Your task to perform on an android device: Open the calendar and show me this week's events? Image 0: 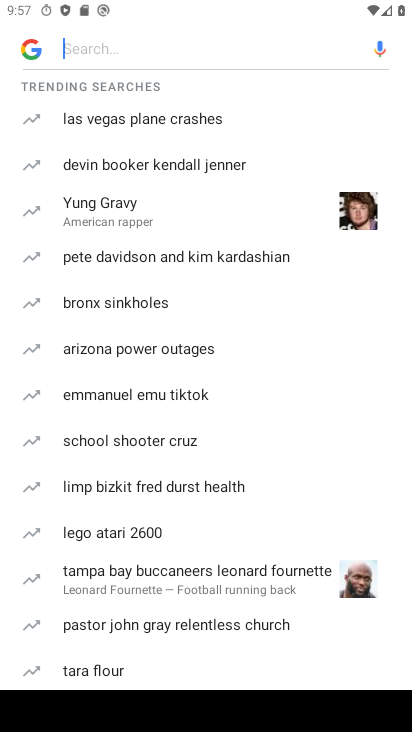
Step 0: press home button
Your task to perform on an android device: Open the calendar and show me this week's events? Image 1: 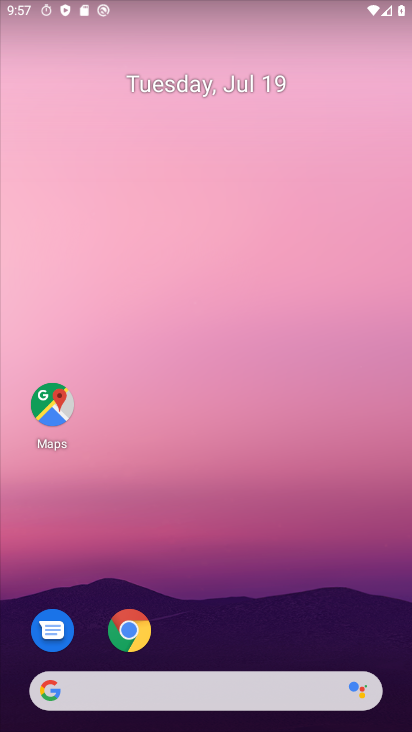
Step 1: drag from (23, 723) to (314, 92)
Your task to perform on an android device: Open the calendar and show me this week's events? Image 2: 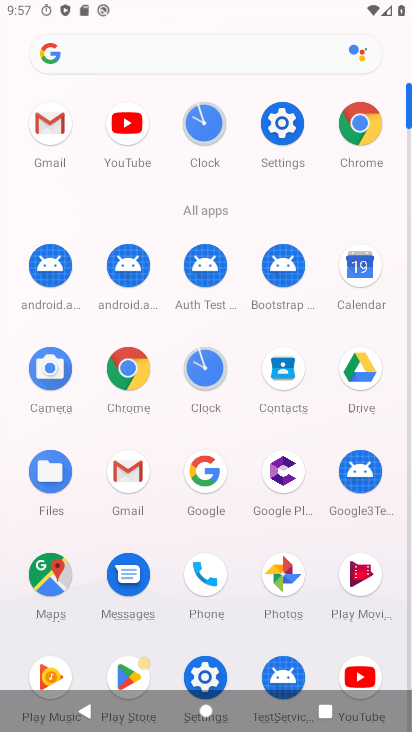
Step 2: click (355, 272)
Your task to perform on an android device: Open the calendar and show me this week's events? Image 3: 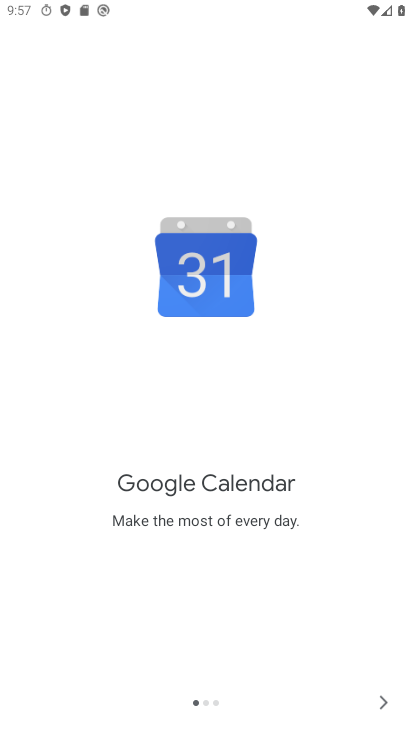
Step 3: click (382, 701)
Your task to perform on an android device: Open the calendar and show me this week's events? Image 4: 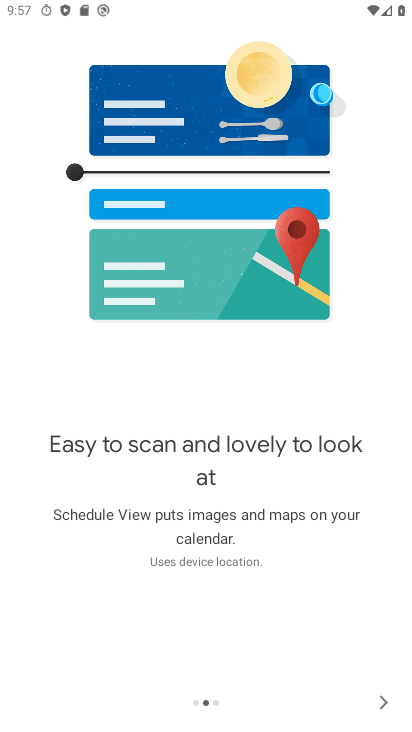
Step 4: click (382, 701)
Your task to perform on an android device: Open the calendar and show me this week's events? Image 5: 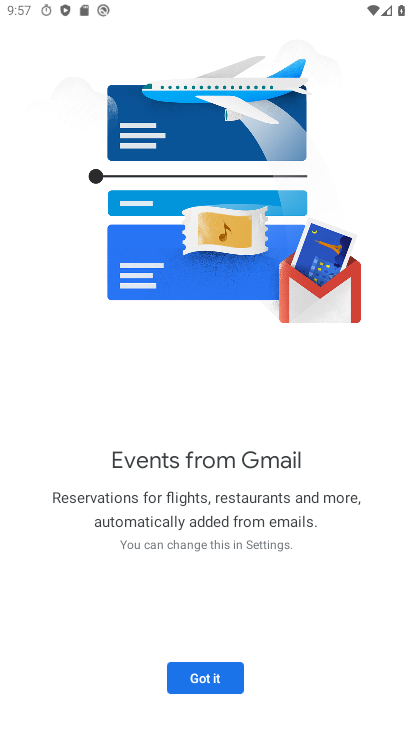
Step 5: click (223, 668)
Your task to perform on an android device: Open the calendar and show me this week's events? Image 6: 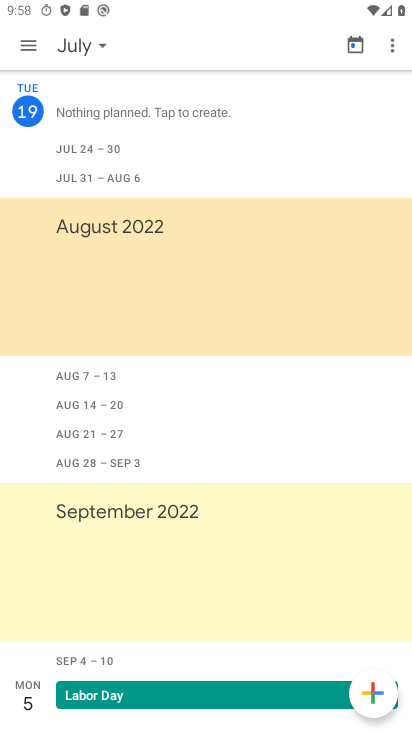
Step 6: click (102, 41)
Your task to perform on an android device: Open the calendar and show me this week's events? Image 7: 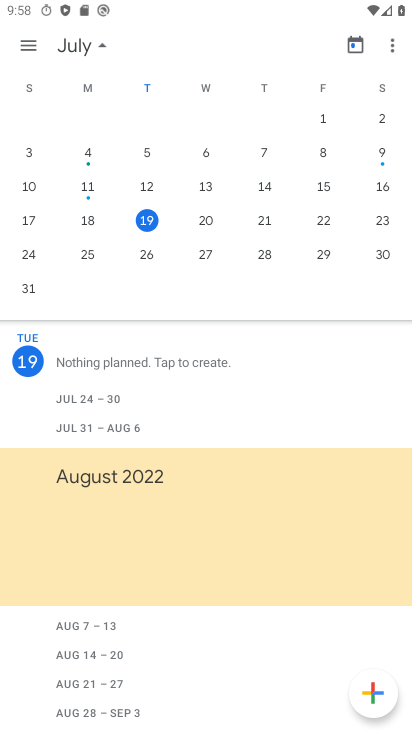
Step 7: click (209, 223)
Your task to perform on an android device: Open the calendar and show me this week's events? Image 8: 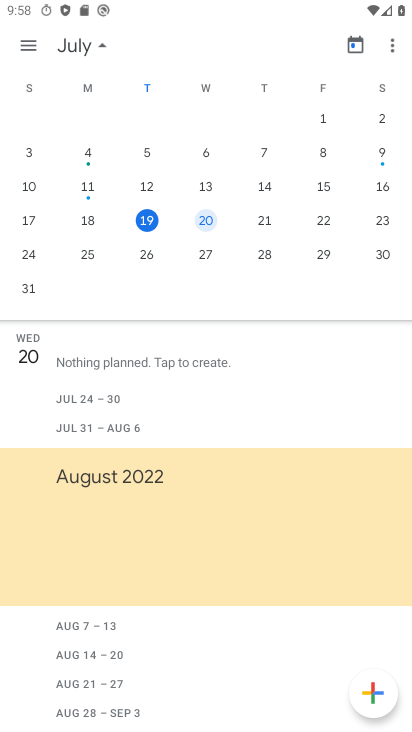
Step 8: click (278, 224)
Your task to perform on an android device: Open the calendar and show me this week's events? Image 9: 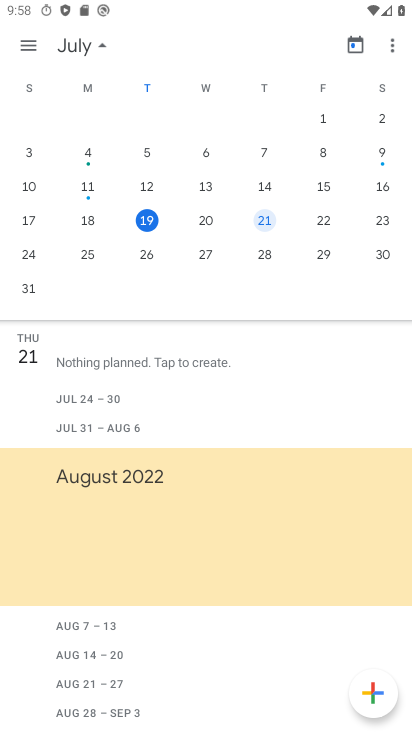
Step 9: drag from (266, 494) to (308, 118)
Your task to perform on an android device: Open the calendar and show me this week's events? Image 10: 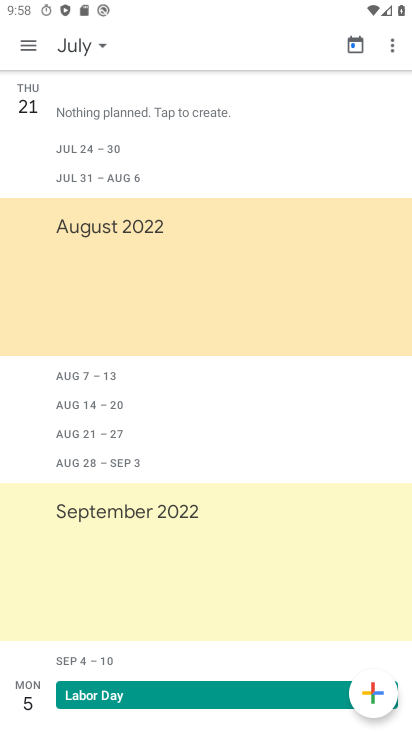
Step 10: drag from (312, 108) to (326, 658)
Your task to perform on an android device: Open the calendar and show me this week's events? Image 11: 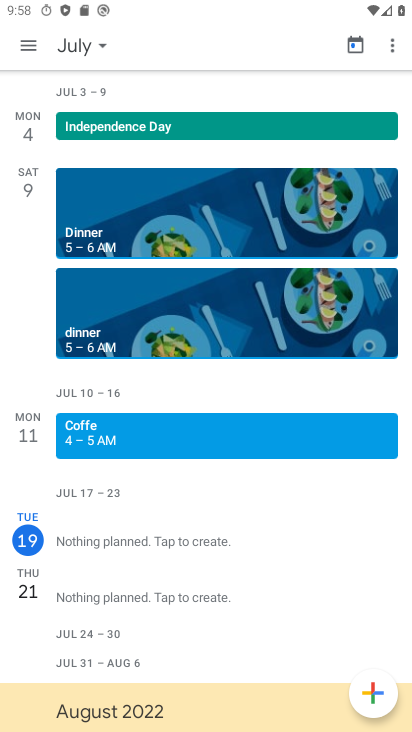
Step 11: click (244, 476)
Your task to perform on an android device: Open the calendar and show me this week's events? Image 12: 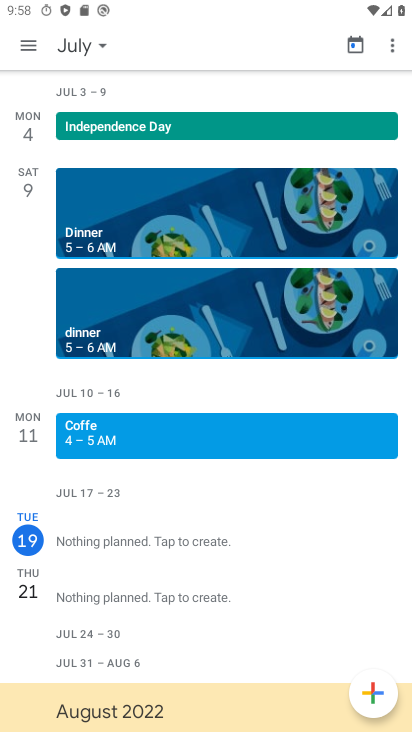
Step 12: drag from (233, 209) to (233, 542)
Your task to perform on an android device: Open the calendar and show me this week's events? Image 13: 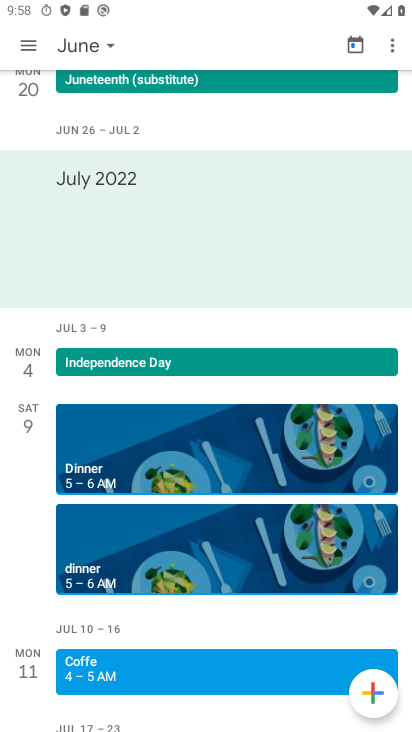
Step 13: drag from (282, 157) to (283, 493)
Your task to perform on an android device: Open the calendar and show me this week's events? Image 14: 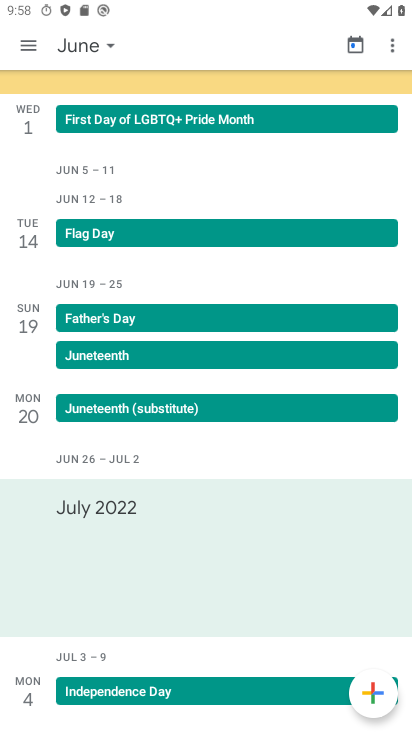
Step 14: drag from (282, 176) to (260, 467)
Your task to perform on an android device: Open the calendar and show me this week's events? Image 15: 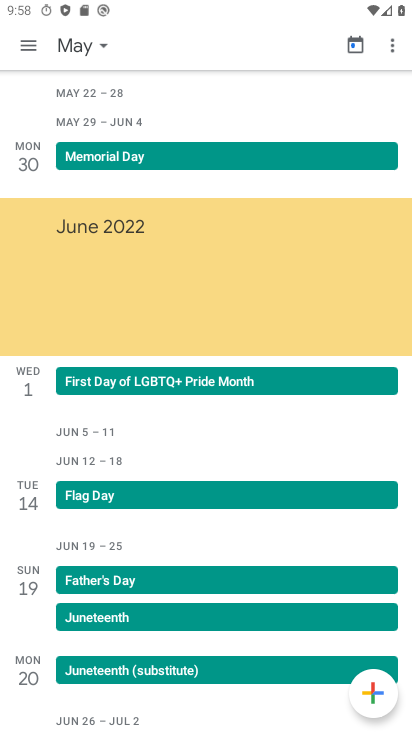
Step 15: drag from (231, 228) to (202, 537)
Your task to perform on an android device: Open the calendar and show me this week's events? Image 16: 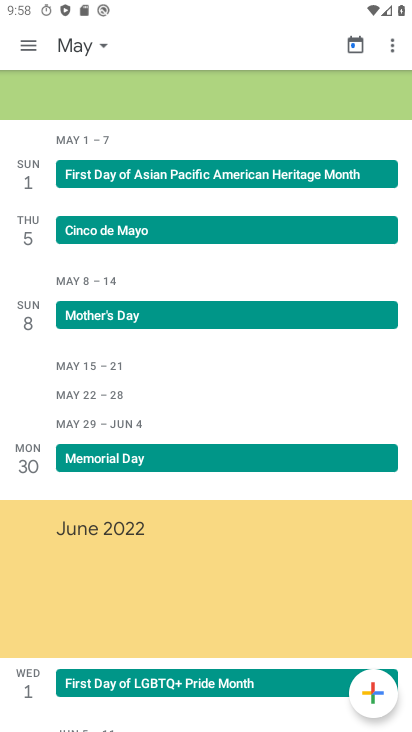
Step 16: click (92, 48)
Your task to perform on an android device: Open the calendar and show me this week's events? Image 17: 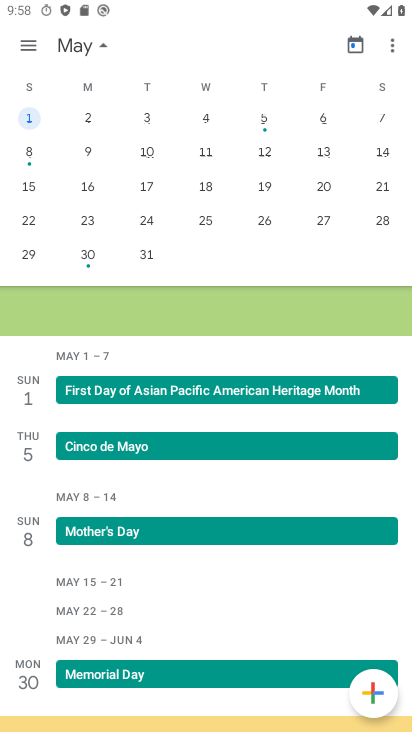
Step 17: task complete